Your task to perform on an android device: all mails in gmail Image 0: 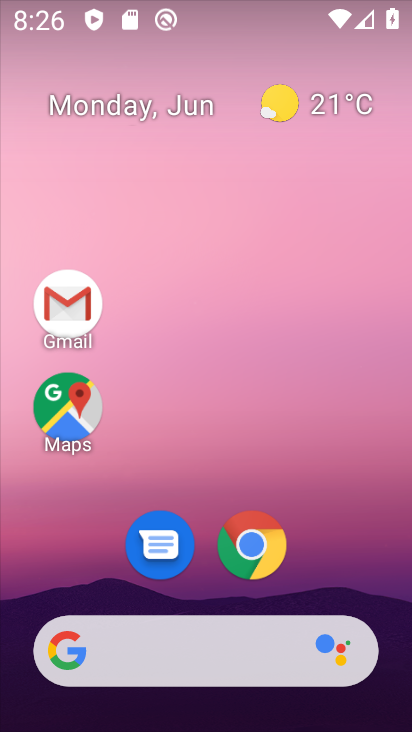
Step 0: click (33, 288)
Your task to perform on an android device: all mails in gmail Image 1: 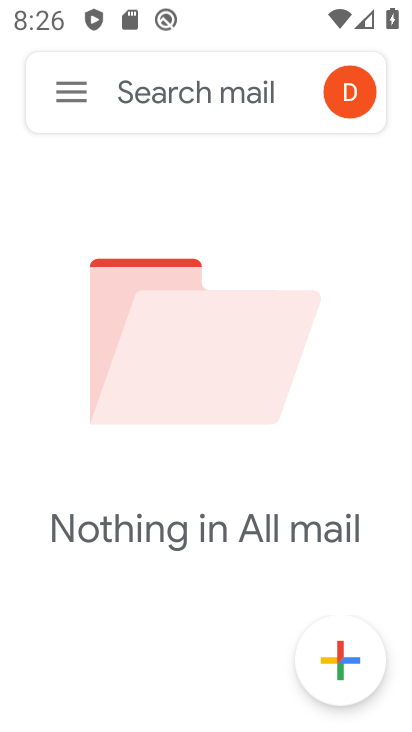
Step 1: task complete